Your task to perform on an android device: find photos in the google photos app Image 0: 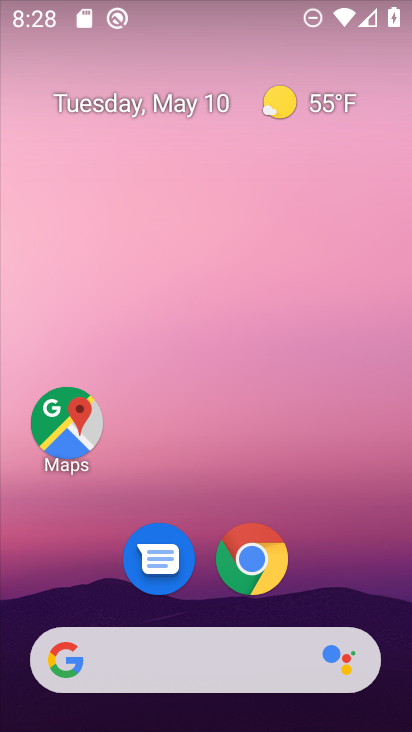
Step 0: drag from (210, 729) to (218, 93)
Your task to perform on an android device: find photos in the google photos app Image 1: 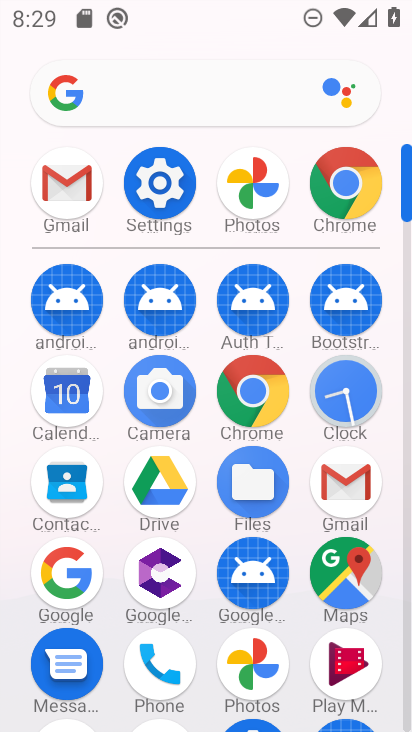
Step 1: click (264, 648)
Your task to perform on an android device: find photos in the google photos app Image 2: 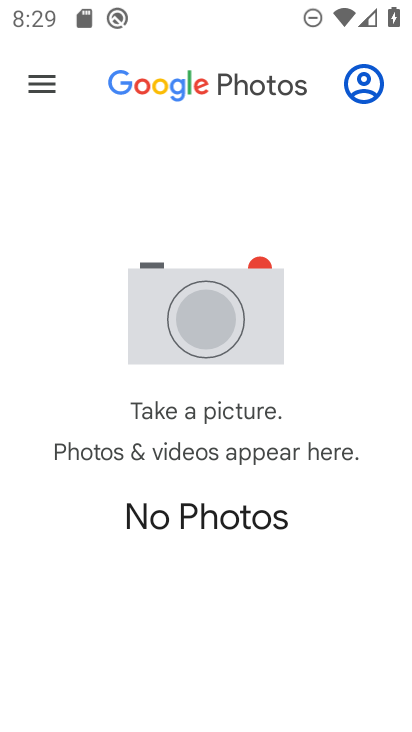
Step 2: click (46, 84)
Your task to perform on an android device: find photos in the google photos app Image 3: 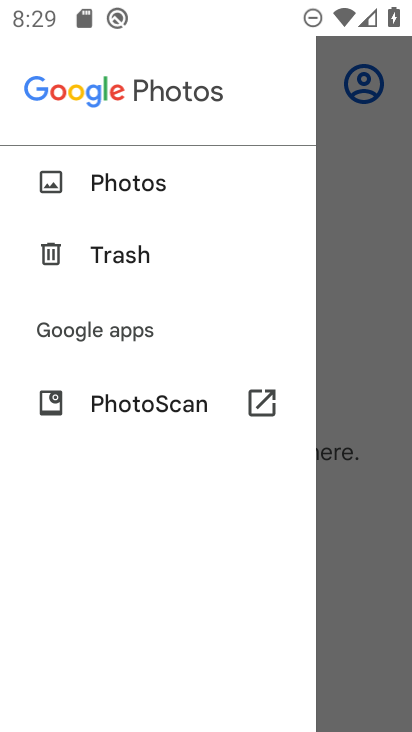
Step 3: click (130, 174)
Your task to perform on an android device: find photos in the google photos app Image 4: 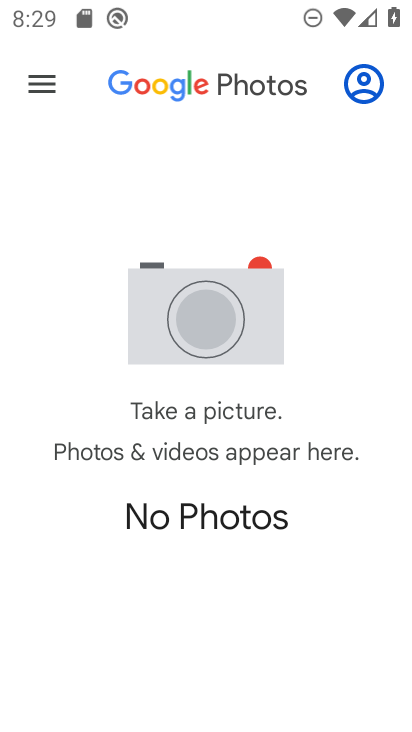
Step 4: task complete